Your task to perform on an android device: Search for "bose quietcomfort 35" on target.com, select the first entry, and add it to the cart. Image 0: 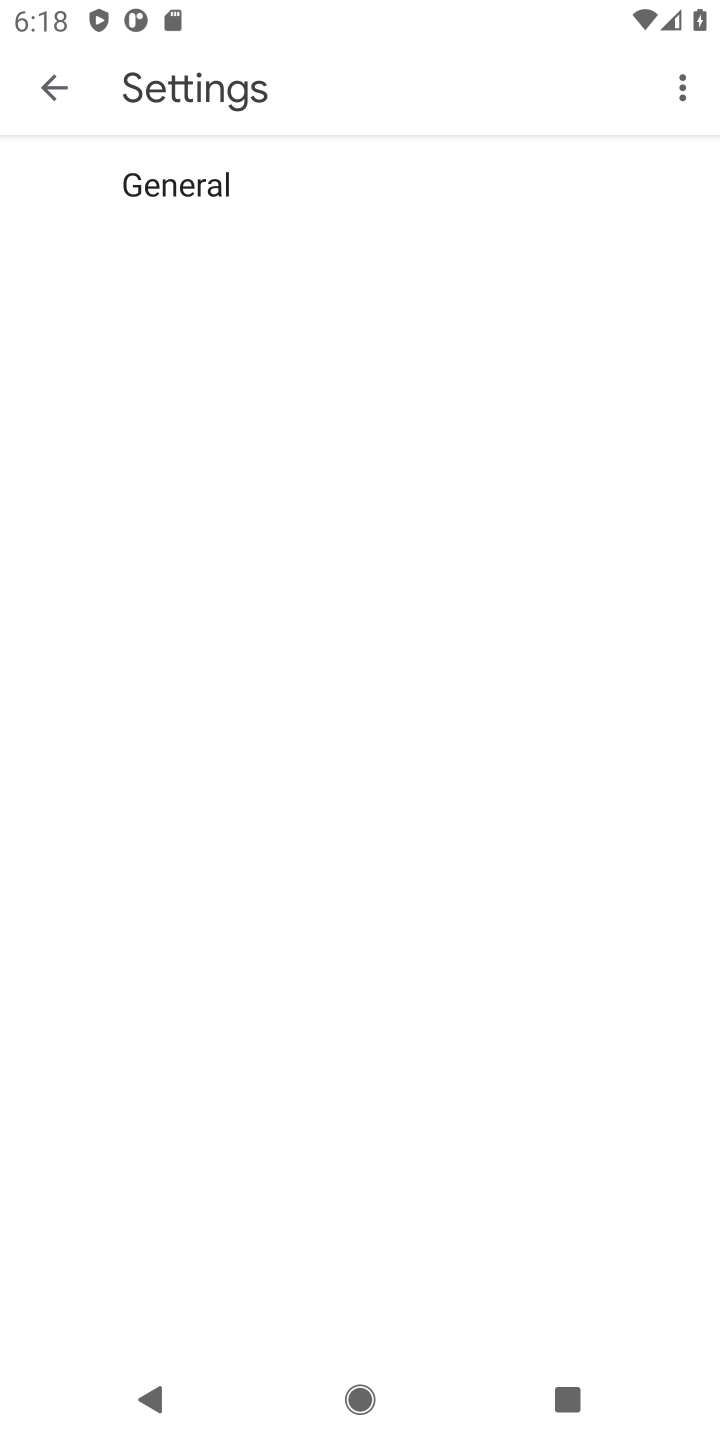
Step 0: press home button
Your task to perform on an android device: Search for "bose quietcomfort 35" on target.com, select the first entry, and add it to the cart. Image 1: 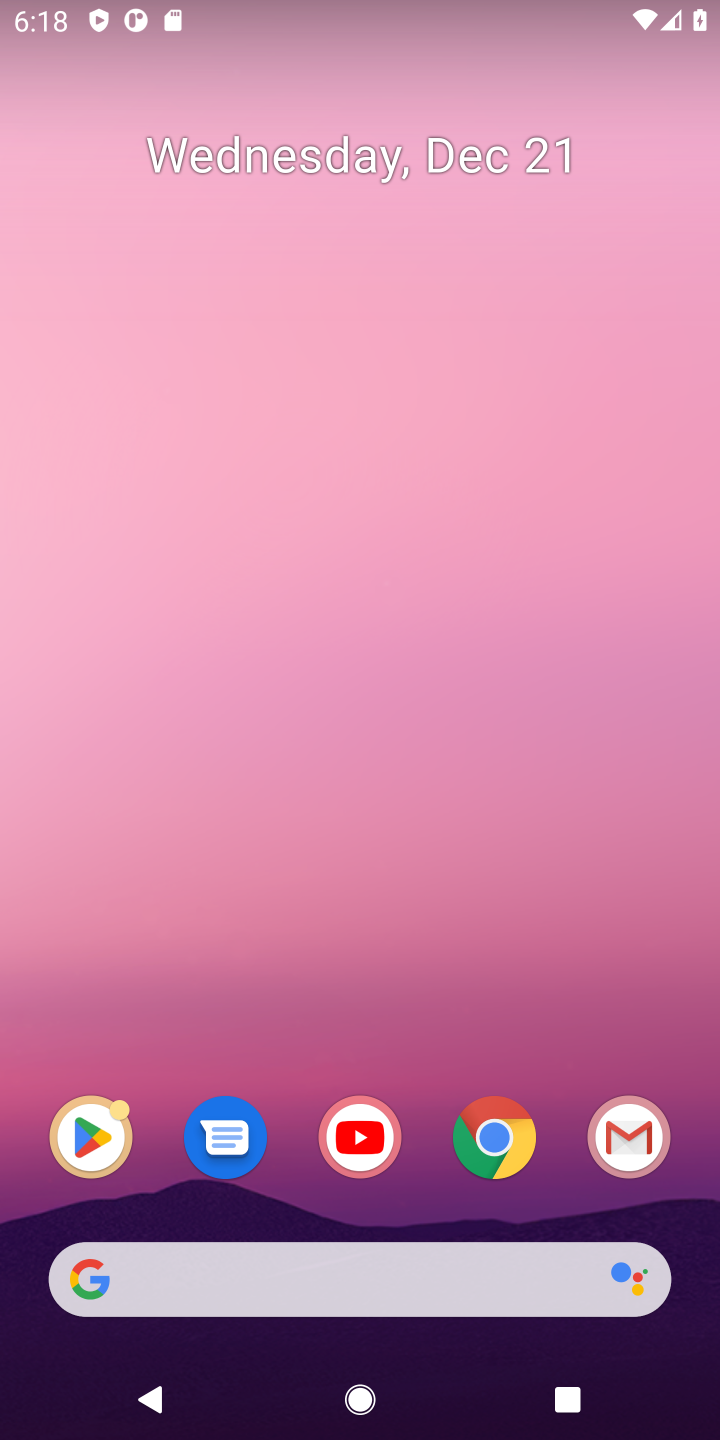
Step 1: click (491, 1147)
Your task to perform on an android device: Search for "bose quietcomfort 35" on target.com, select the first entry, and add it to the cart. Image 2: 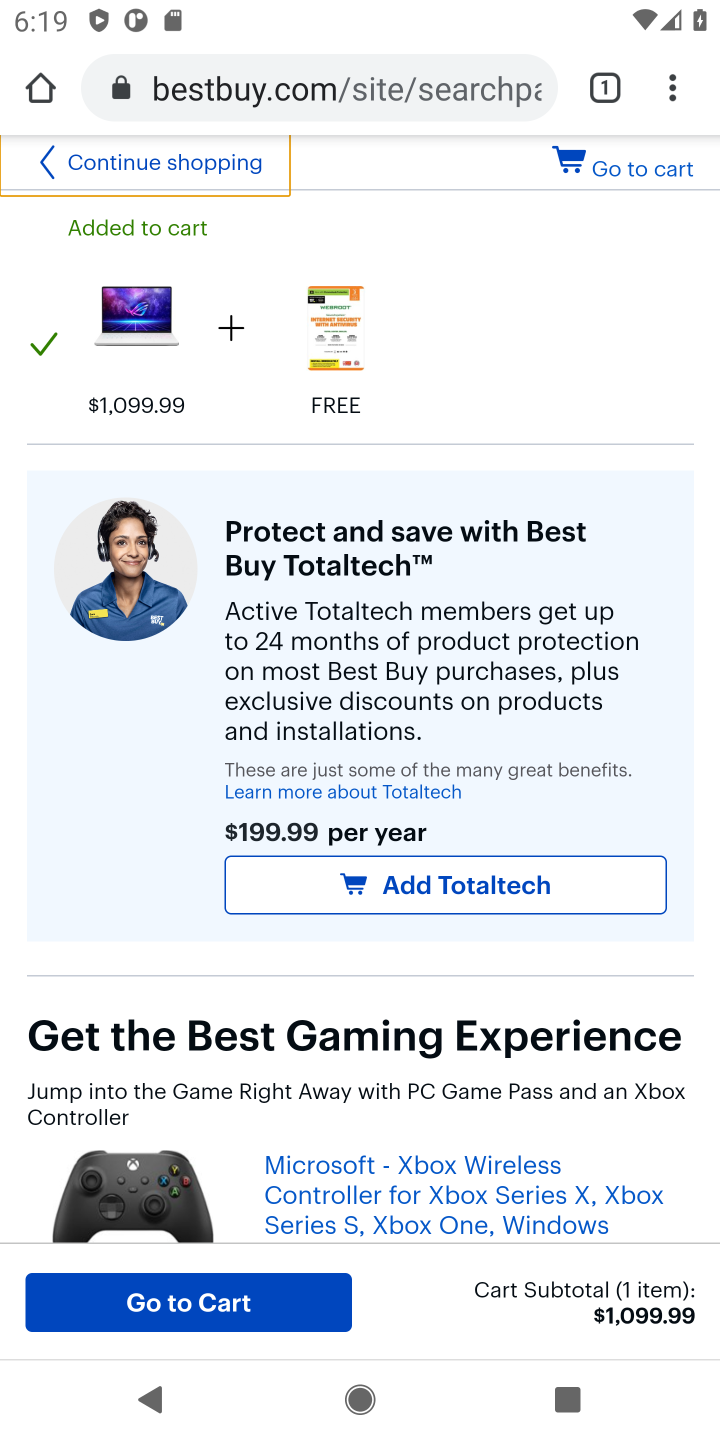
Step 2: click (252, 80)
Your task to perform on an android device: Search for "bose quietcomfort 35" on target.com, select the first entry, and add it to the cart. Image 3: 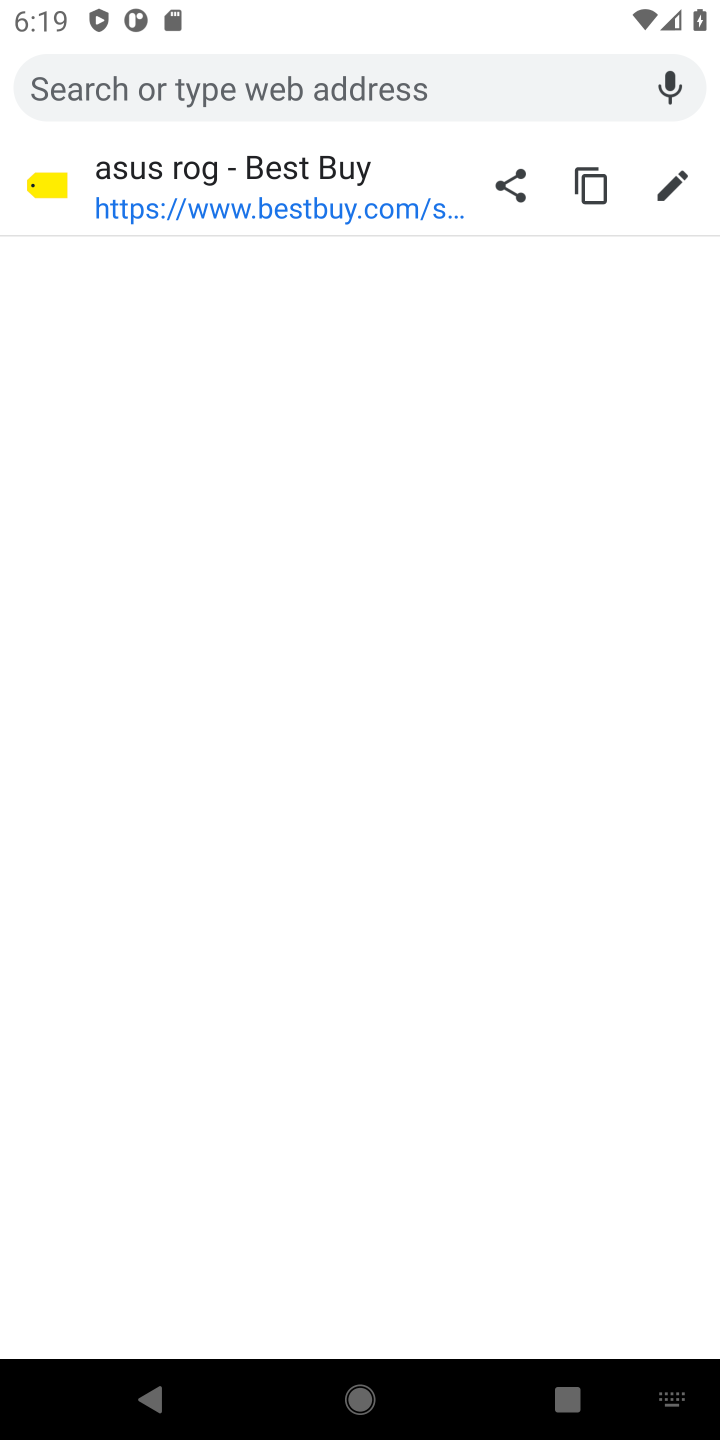
Step 3: type "target.com"
Your task to perform on an android device: Search for "bose quietcomfort 35" on target.com, select the first entry, and add it to the cart. Image 4: 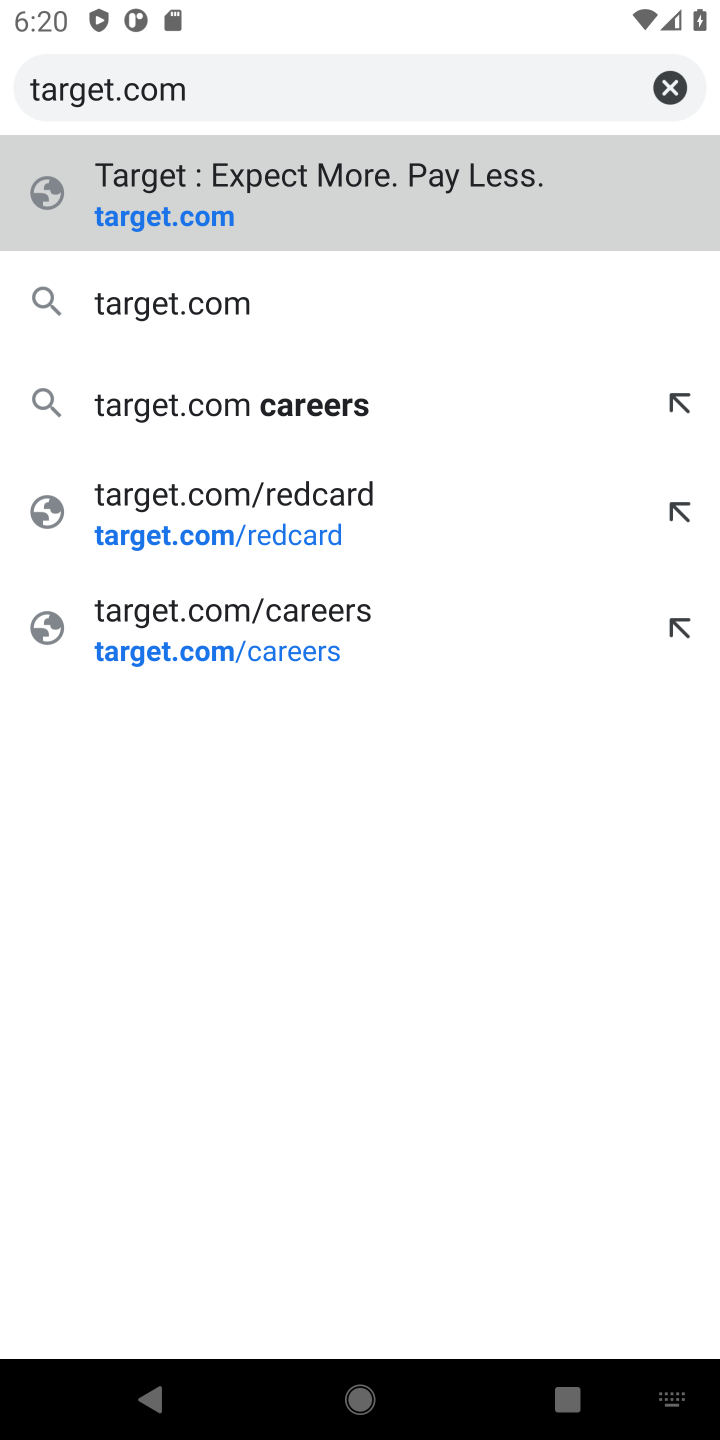
Step 4: click (149, 218)
Your task to perform on an android device: Search for "bose quietcomfort 35" on target.com, select the first entry, and add it to the cart. Image 5: 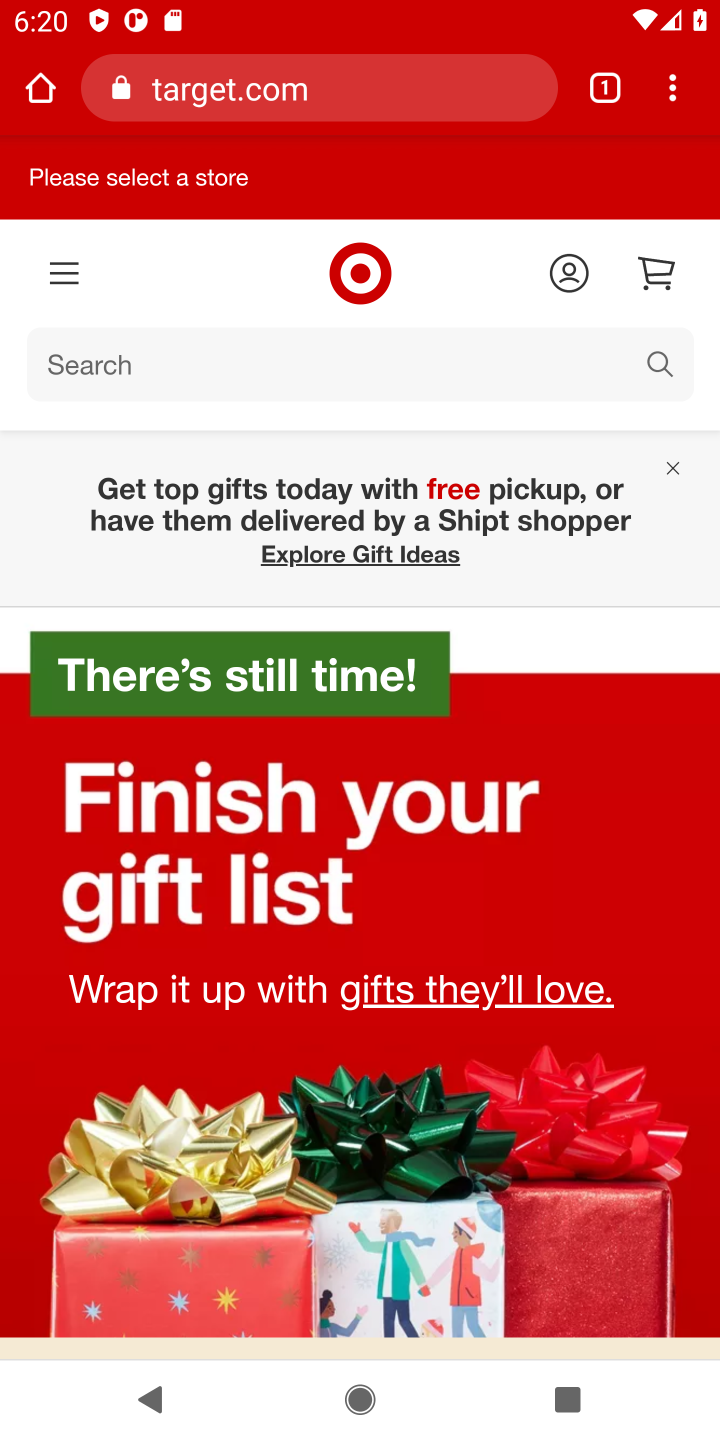
Step 5: click (73, 380)
Your task to perform on an android device: Search for "bose quietcomfort 35" on target.com, select the first entry, and add it to the cart. Image 6: 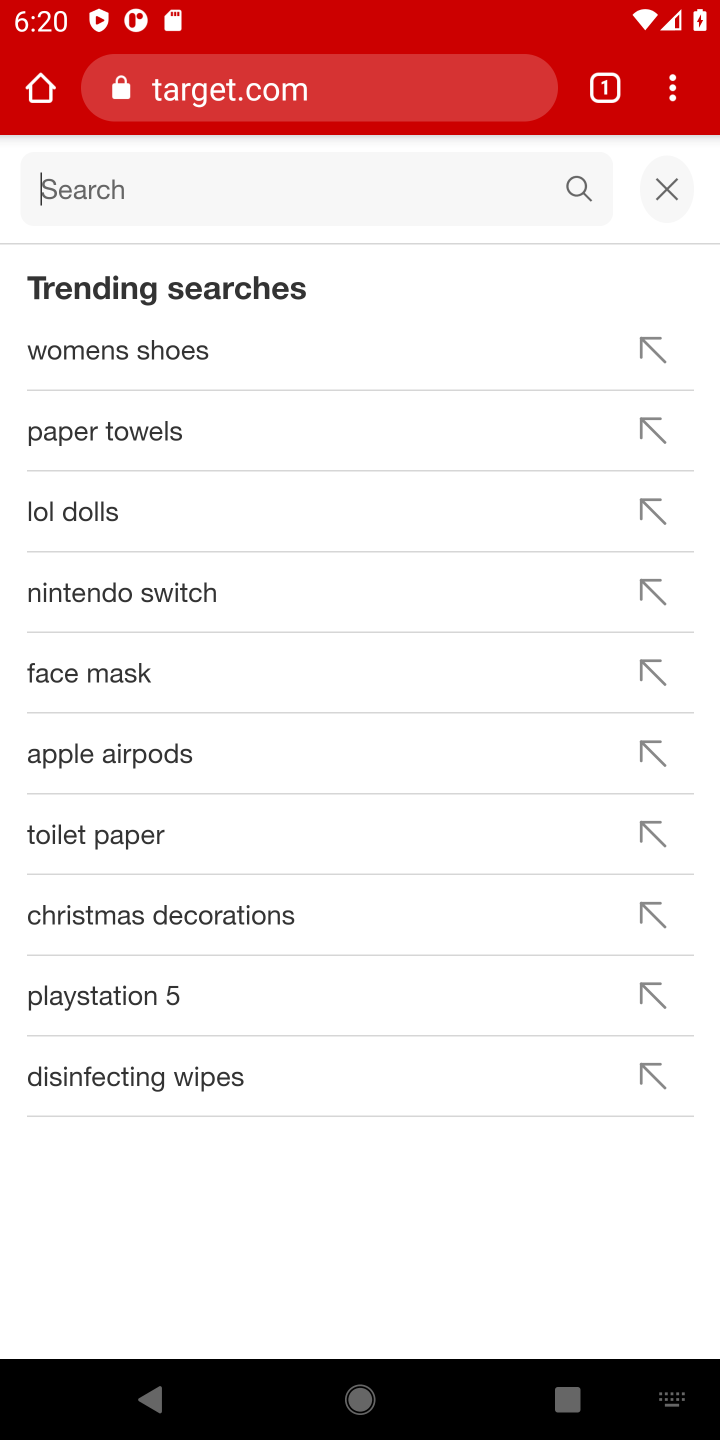
Step 6: type "bose quietcomfort 35"
Your task to perform on an android device: Search for "bose quietcomfort 35" on target.com, select the first entry, and add it to the cart. Image 7: 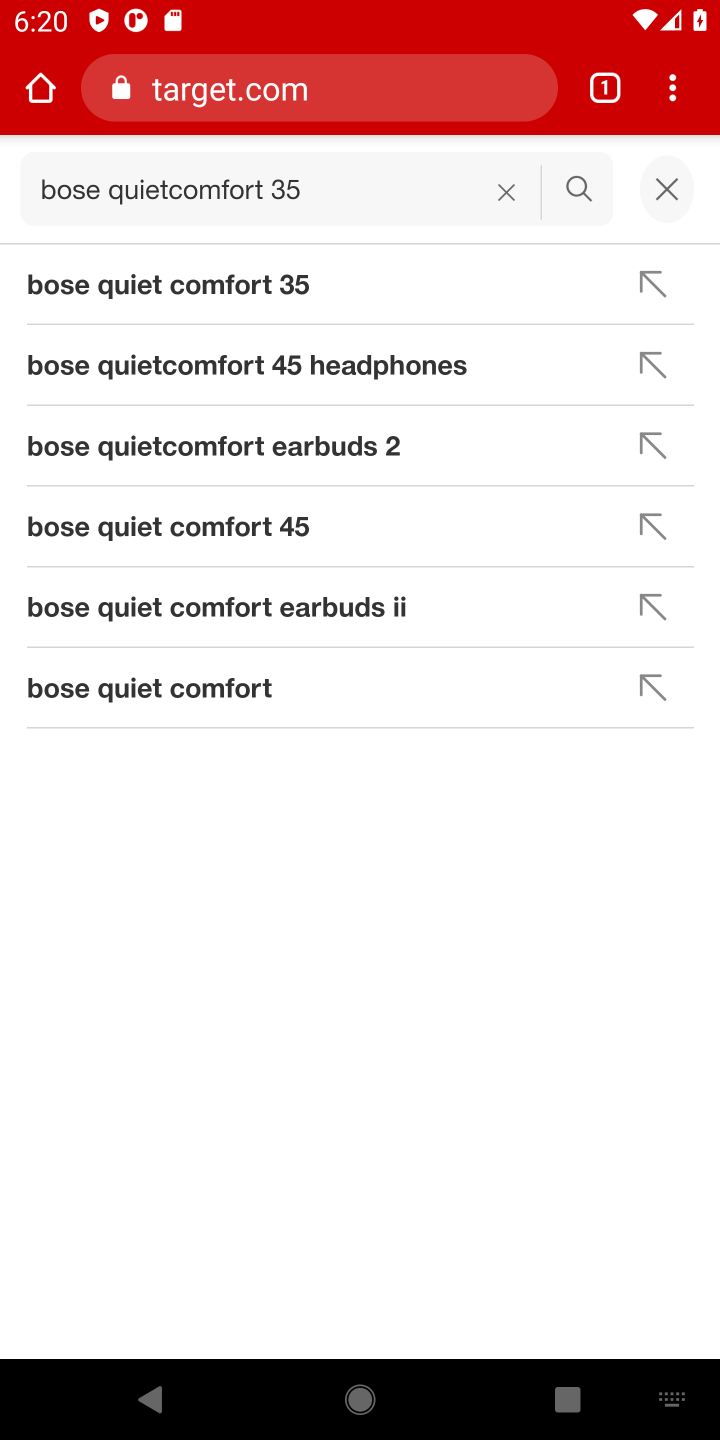
Step 7: click (248, 293)
Your task to perform on an android device: Search for "bose quietcomfort 35" on target.com, select the first entry, and add it to the cart. Image 8: 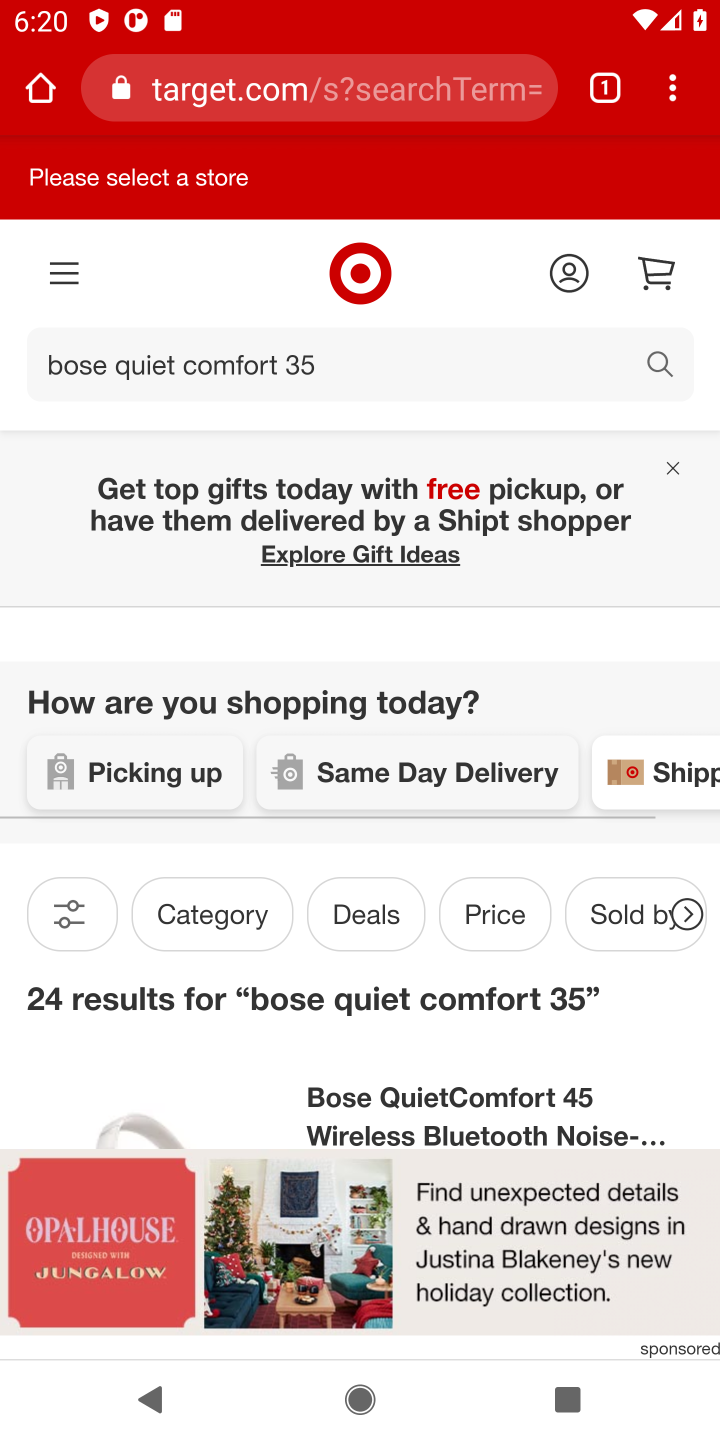
Step 8: task complete